Your task to perform on an android device: Go to settings Image 0: 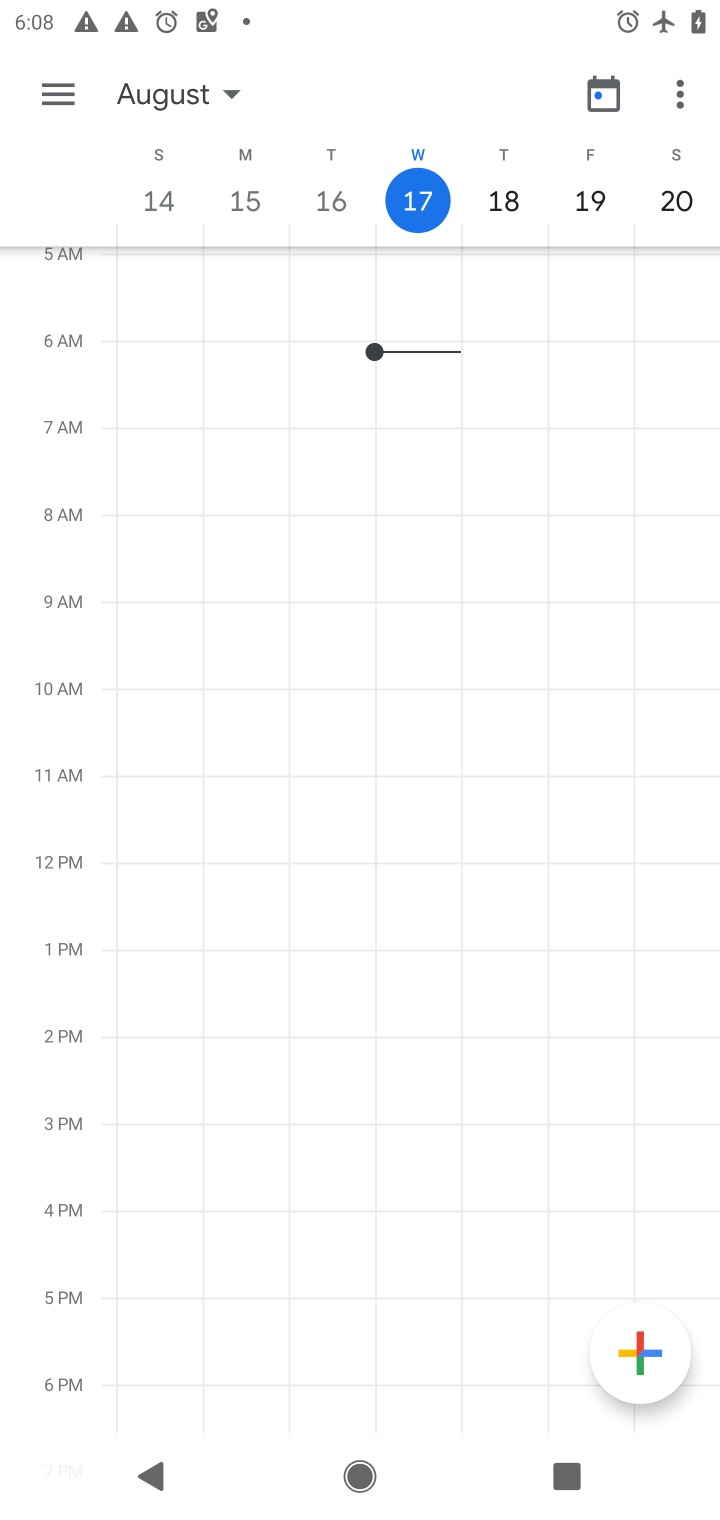
Step 0: press home button
Your task to perform on an android device: Go to settings Image 1: 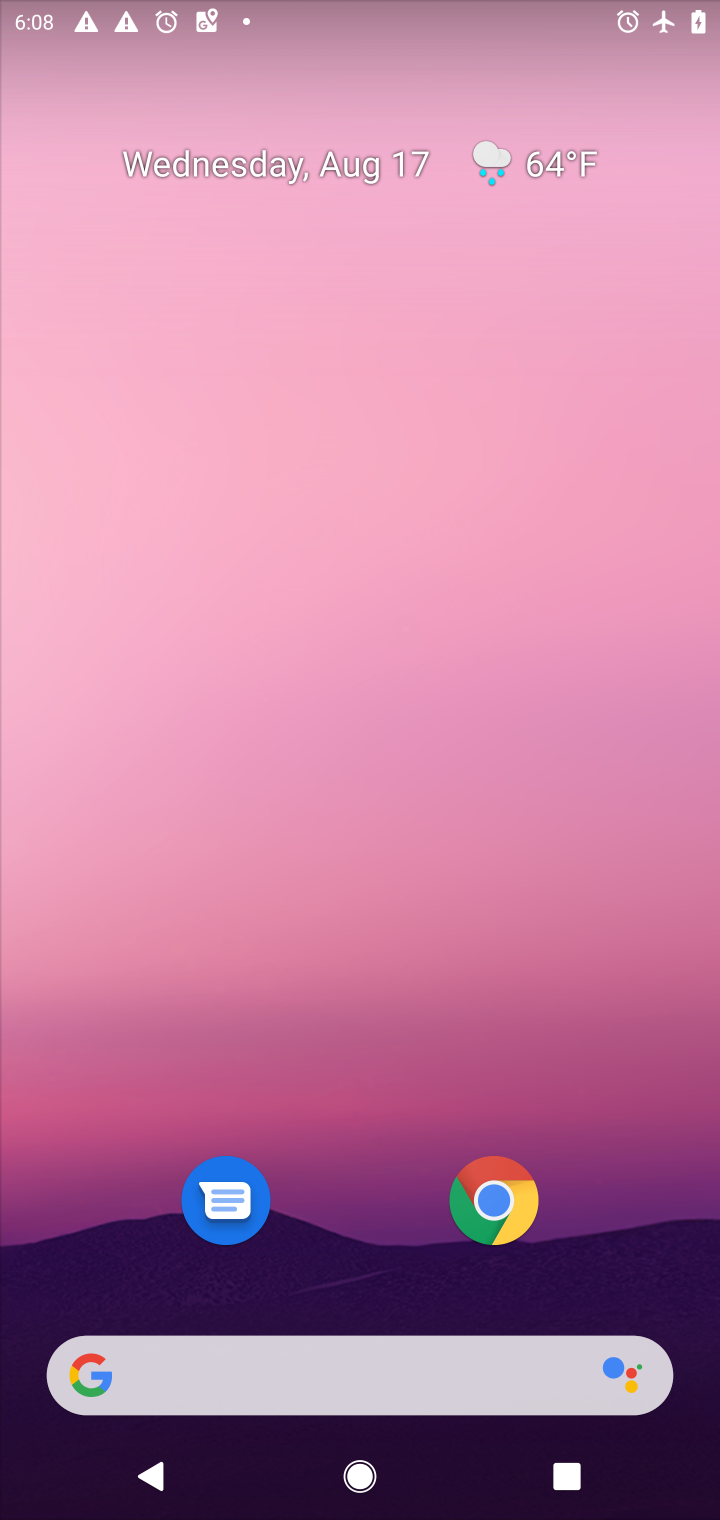
Step 1: drag from (371, 1293) to (424, 202)
Your task to perform on an android device: Go to settings Image 2: 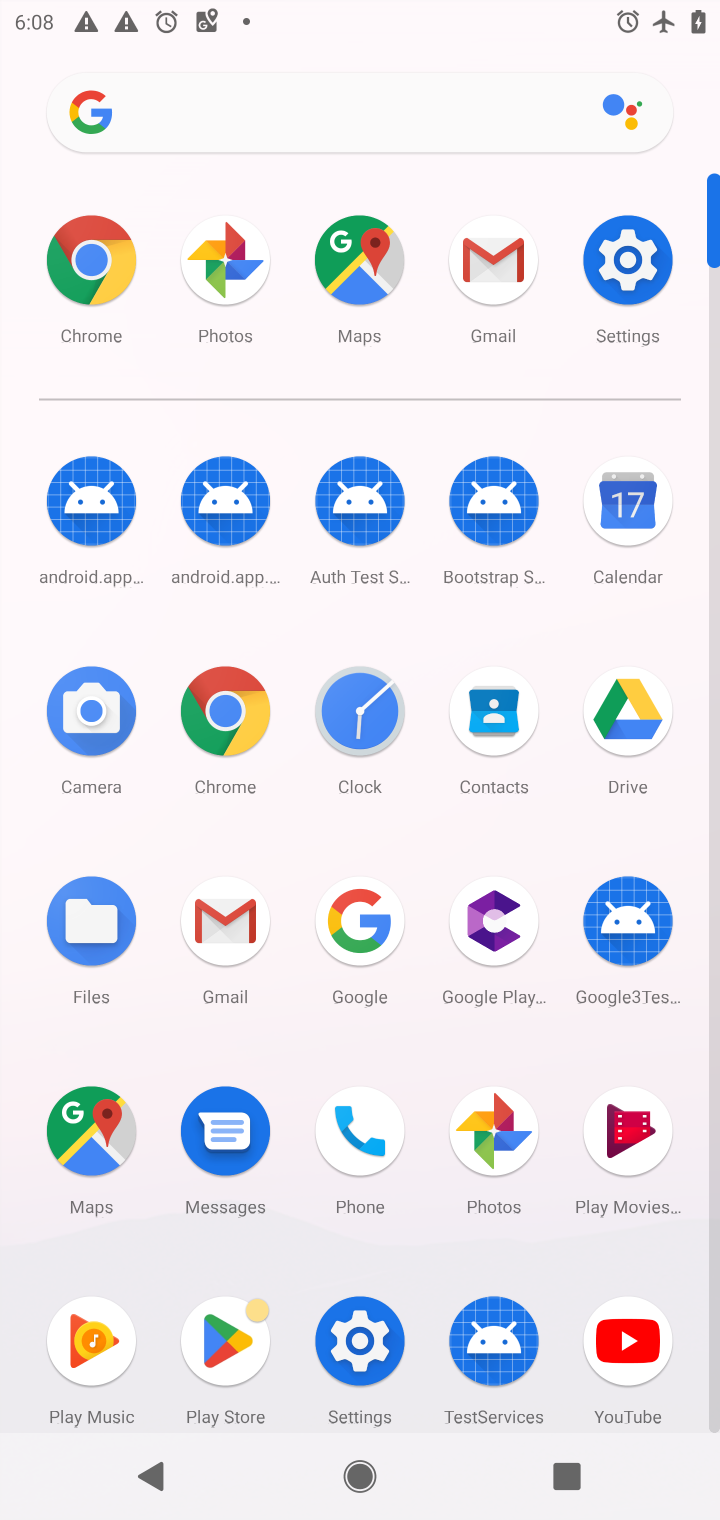
Step 2: click (620, 254)
Your task to perform on an android device: Go to settings Image 3: 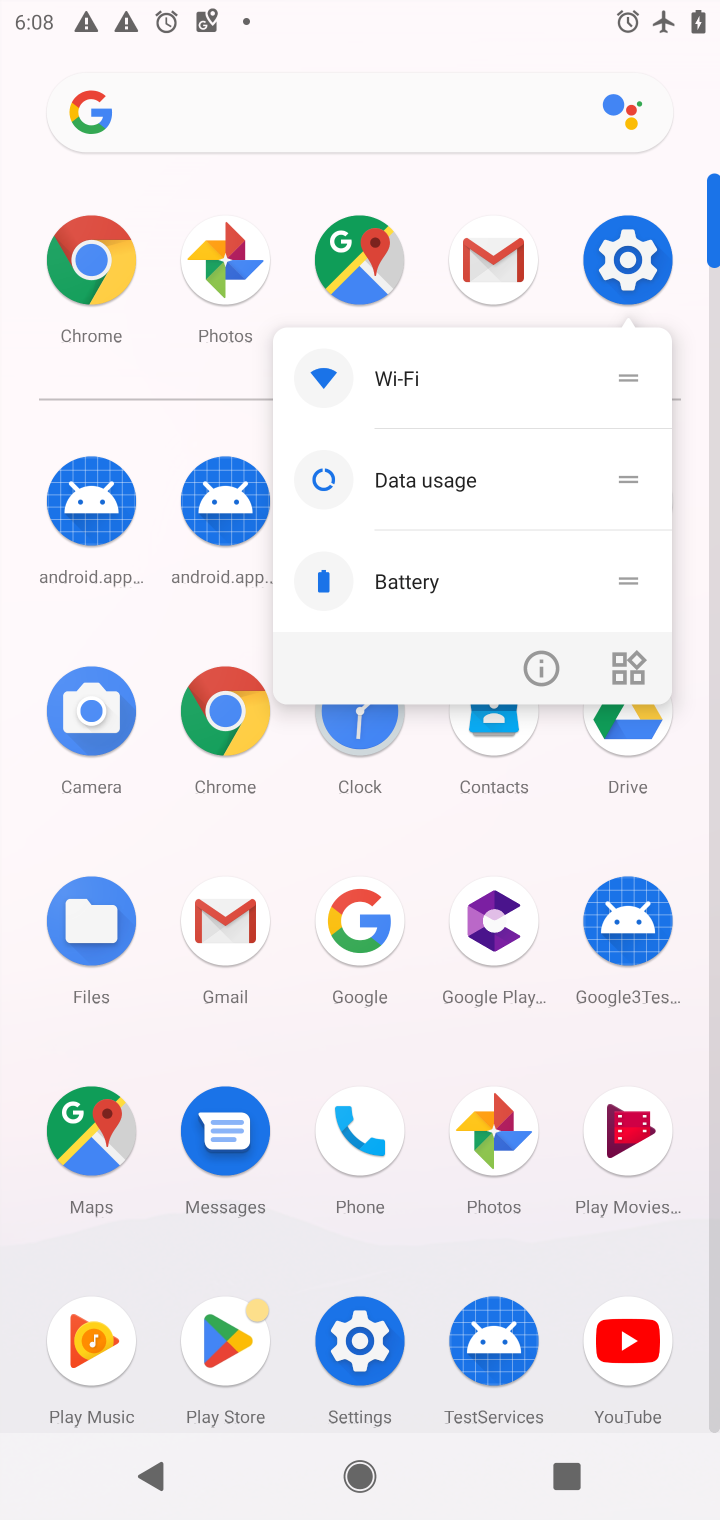
Step 3: click (624, 262)
Your task to perform on an android device: Go to settings Image 4: 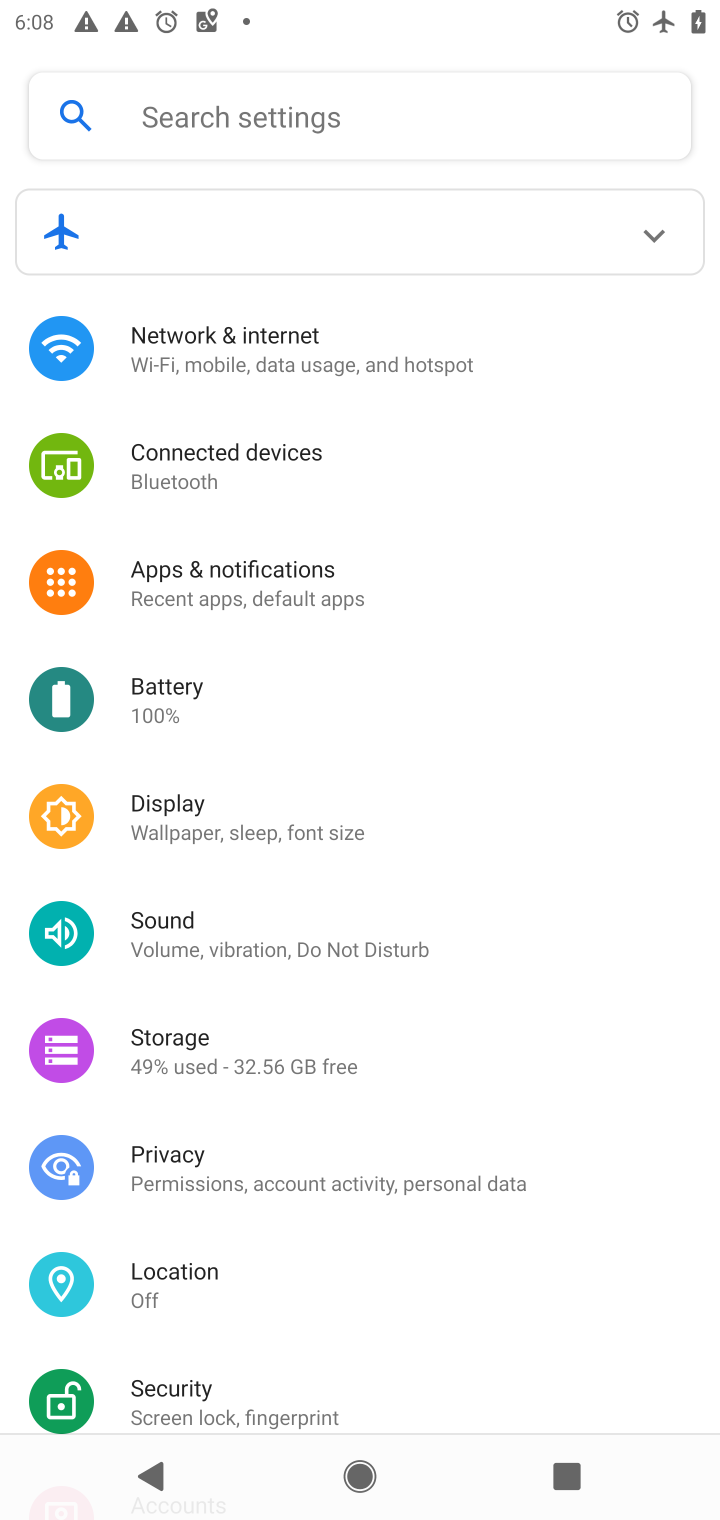
Step 4: task complete